Your task to perform on an android device: Add "dell alienware" to the cart on amazon.com, then select checkout. Image 0: 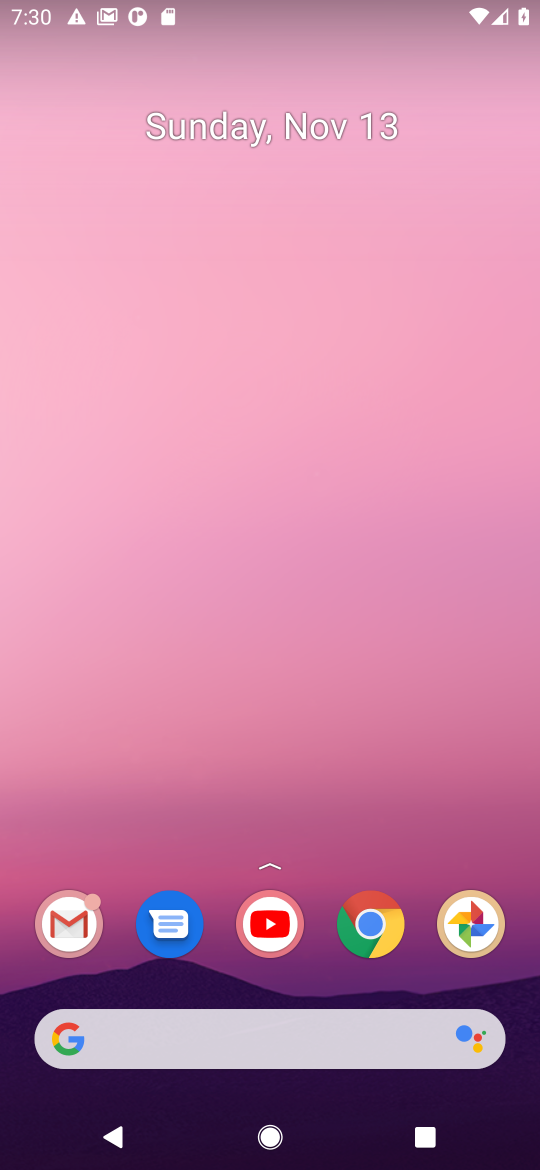
Step 0: click (373, 929)
Your task to perform on an android device: Add "dell alienware" to the cart on amazon.com, then select checkout. Image 1: 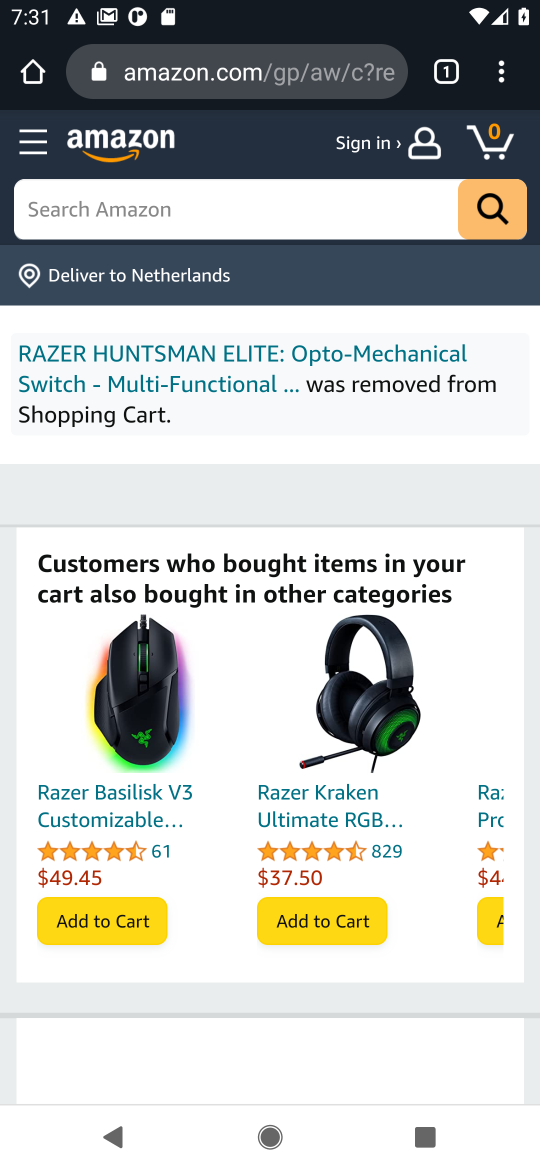
Step 1: click (139, 194)
Your task to perform on an android device: Add "dell alienware" to the cart on amazon.com, then select checkout. Image 2: 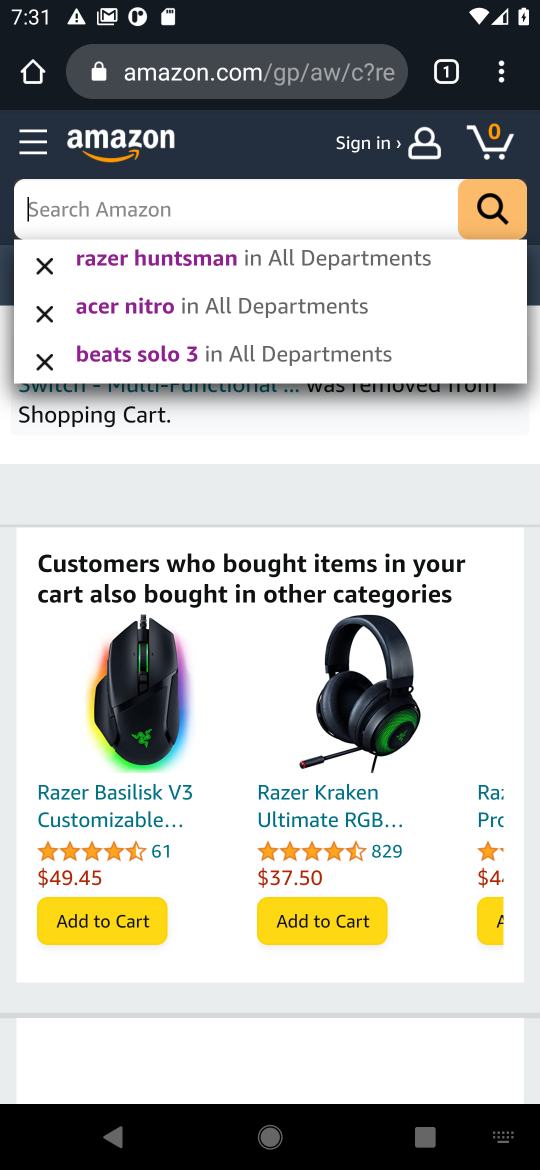
Step 2: type "dell alienware"
Your task to perform on an android device: Add "dell alienware" to the cart on amazon.com, then select checkout. Image 3: 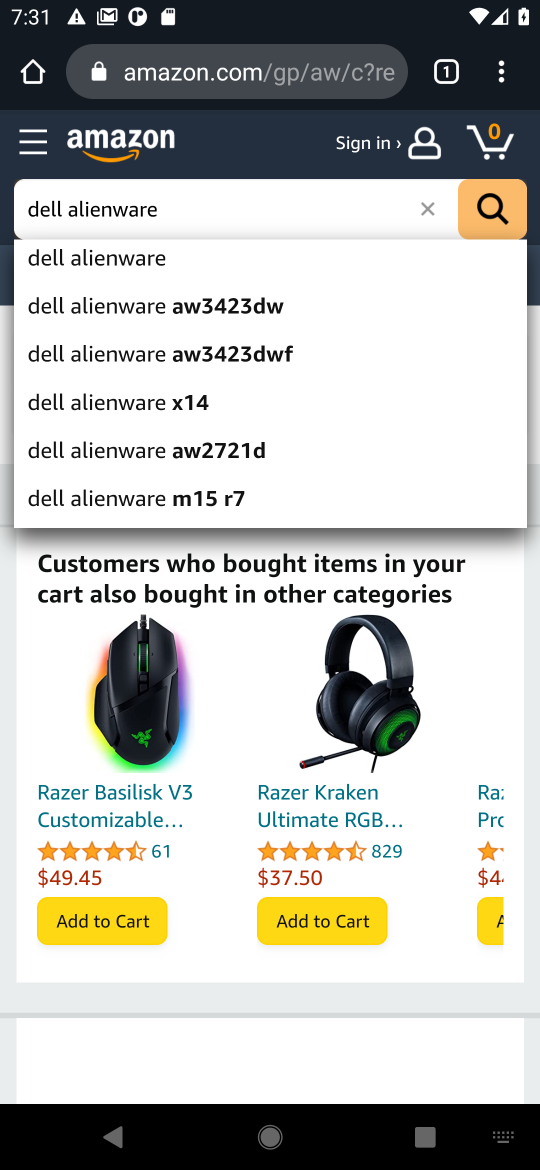
Step 3: click (76, 274)
Your task to perform on an android device: Add "dell alienware" to the cart on amazon.com, then select checkout. Image 4: 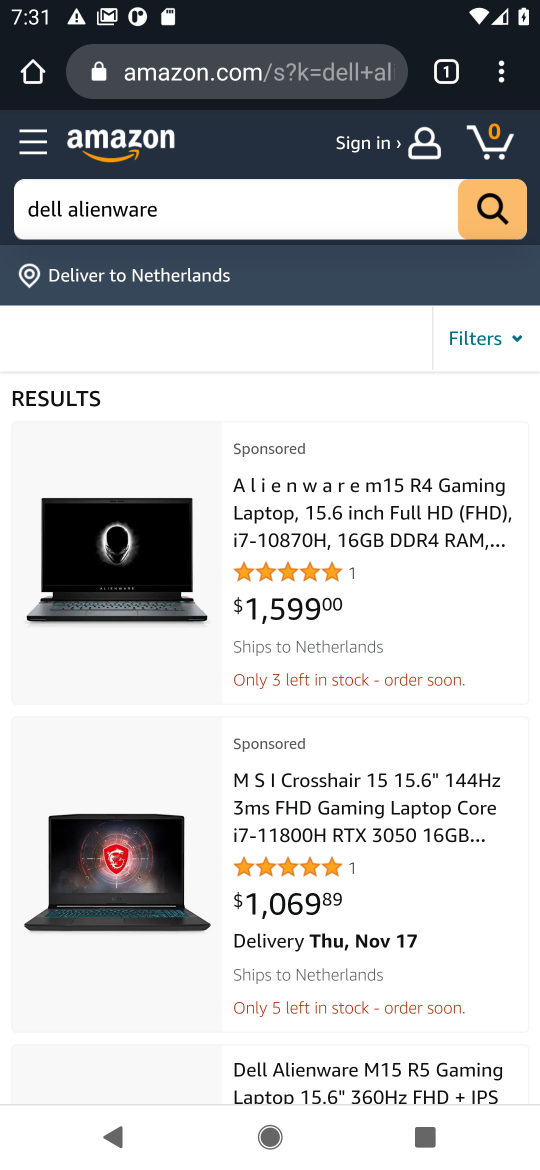
Step 4: drag from (65, 873) to (84, 559)
Your task to perform on an android device: Add "dell alienware" to the cart on amazon.com, then select checkout. Image 5: 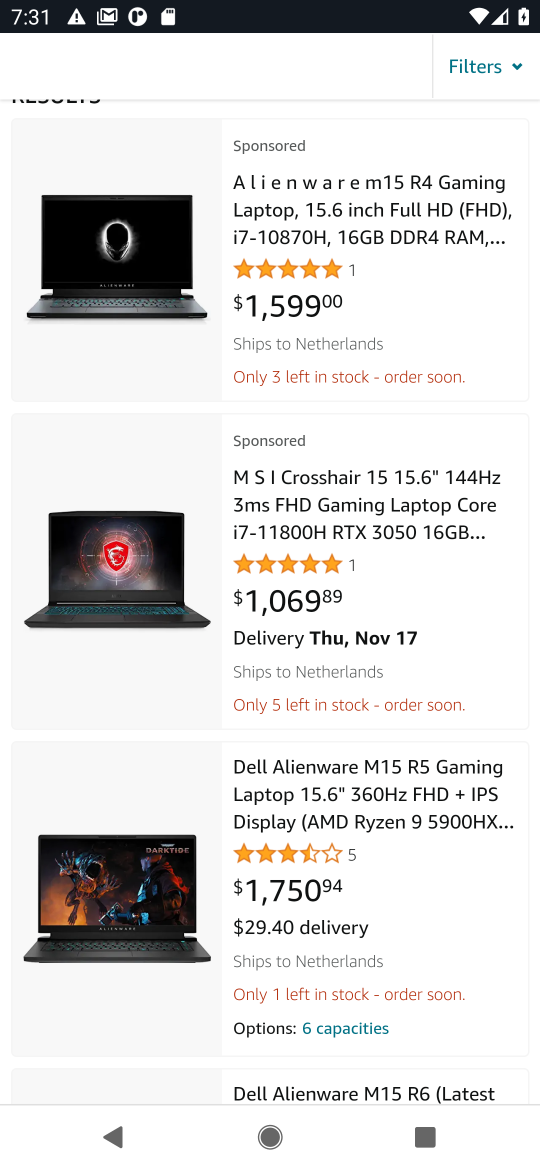
Step 5: click (87, 888)
Your task to perform on an android device: Add "dell alienware" to the cart on amazon.com, then select checkout. Image 6: 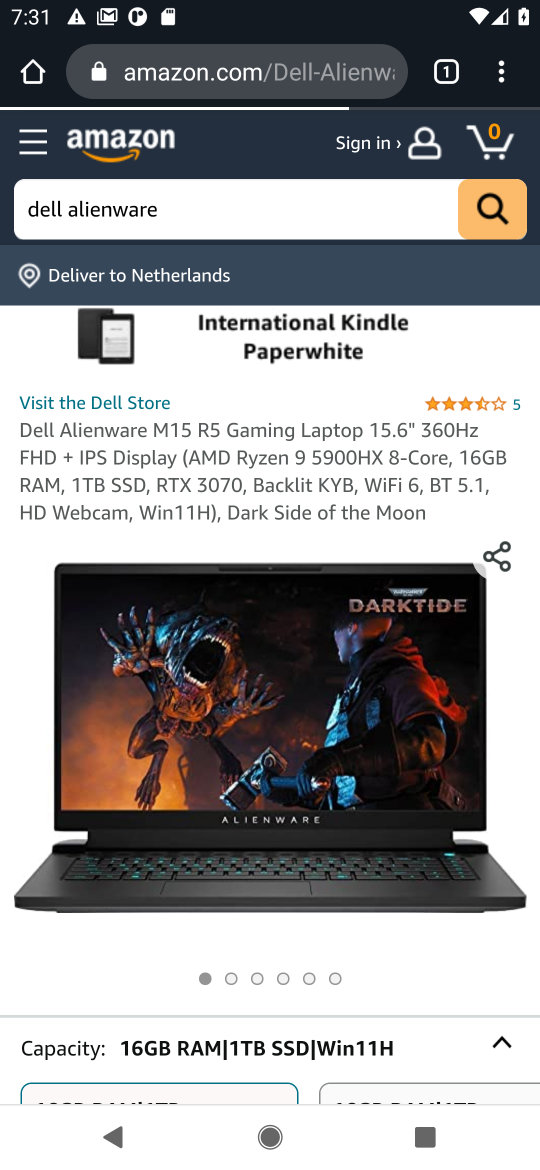
Step 6: drag from (234, 830) to (260, 386)
Your task to perform on an android device: Add "dell alienware" to the cart on amazon.com, then select checkout. Image 7: 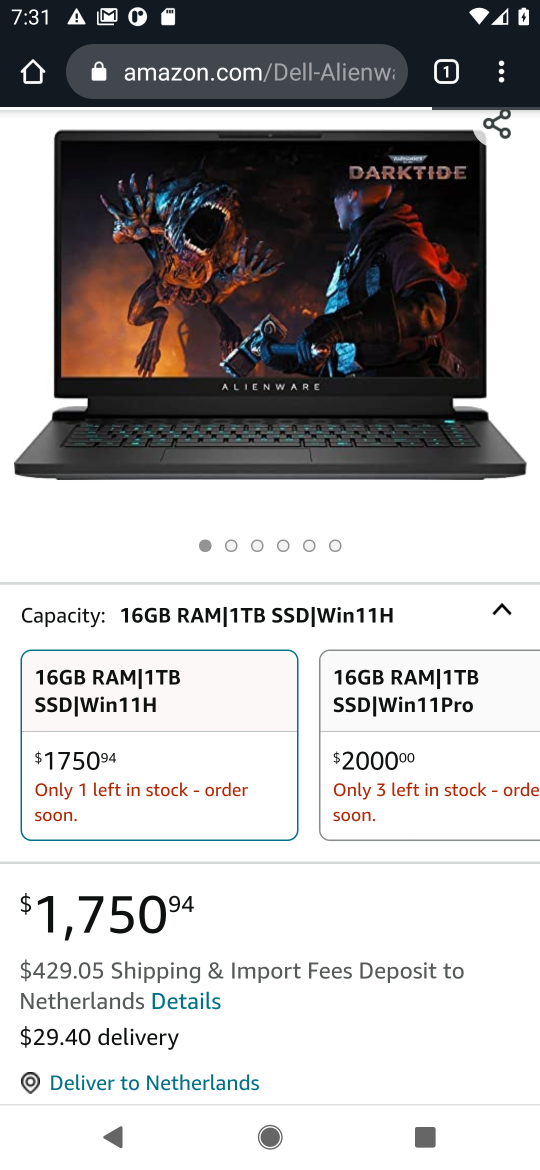
Step 7: drag from (190, 826) to (161, 313)
Your task to perform on an android device: Add "dell alienware" to the cart on amazon.com, then select checkout. Image 8: 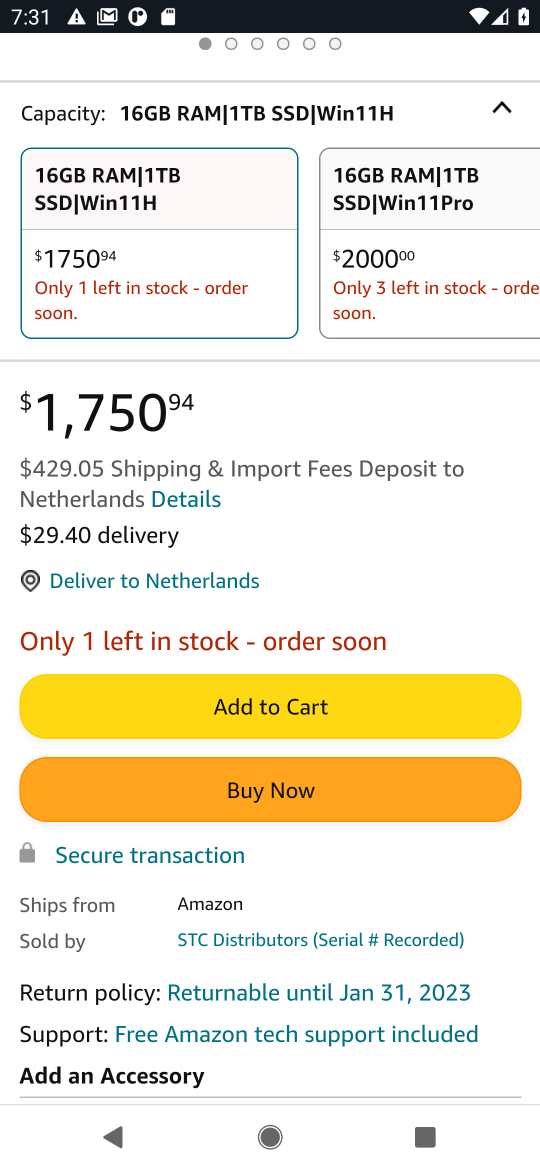
Step 8: click (210, 688)
Your task to perform on an android device: Add "dell alienware" to the cart on amazon.com, then select checkout. Image 9: 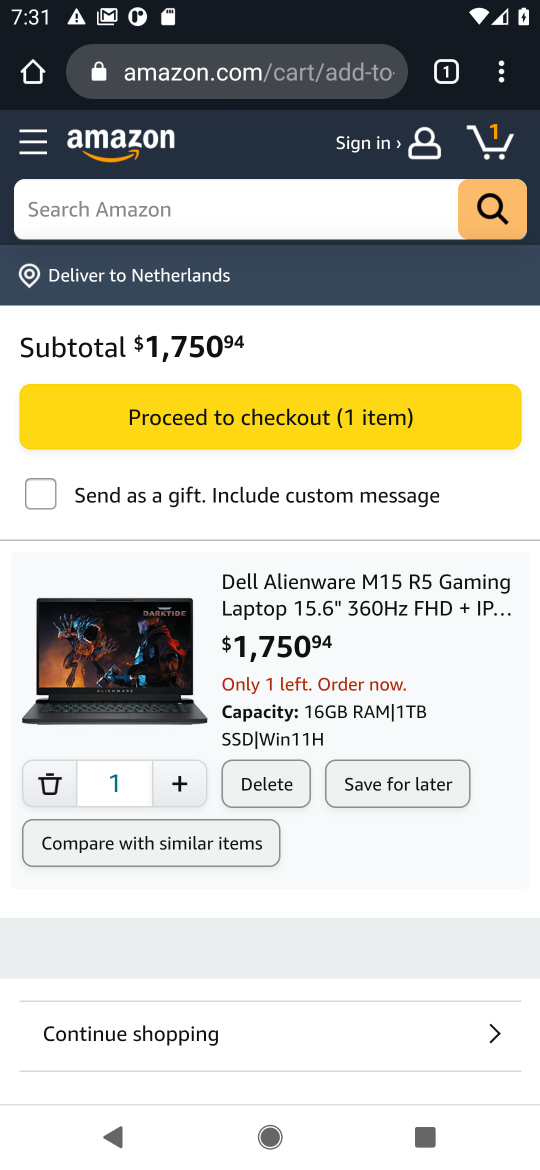
Step 9: click (318, 411)
Your task to perform on an android device: Add "dell alienware" to the cart on amazon.com, then select checkout. Image 10: 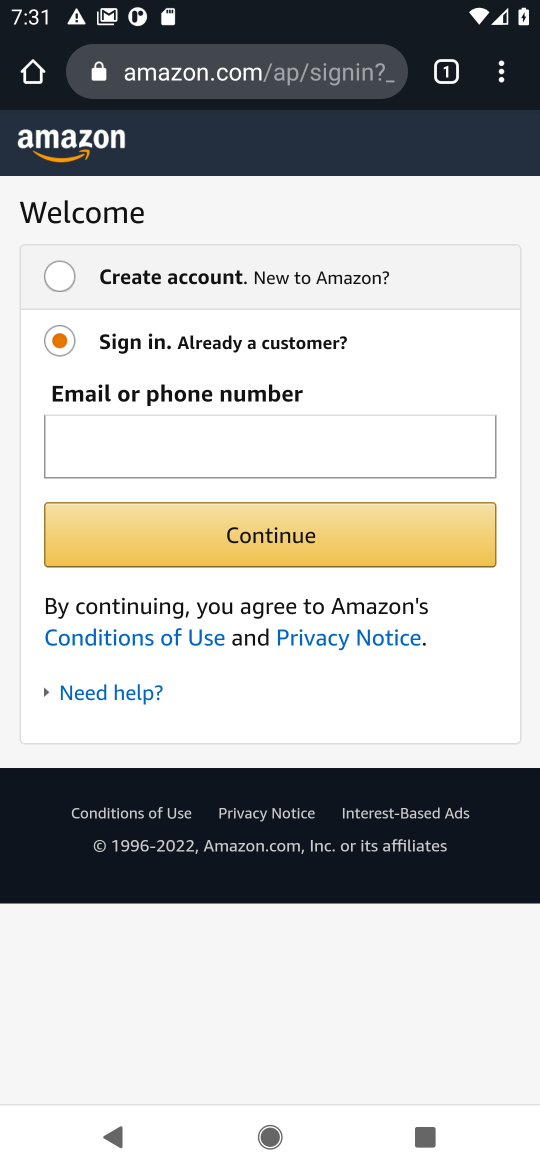
Step 10: task complete